Your task to perform on an android device: Show me popular games on the Play Store Image 0: 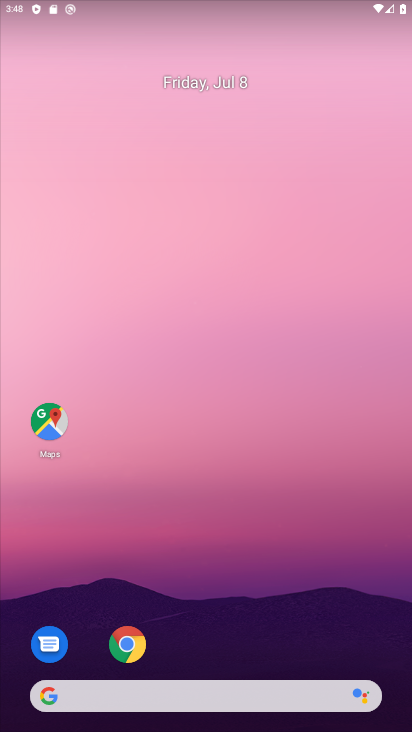
Step 0: drag from (378, 632) to (322, 61)
Your task to perform on an android device: Show me popular games on the Play Store Image 1: 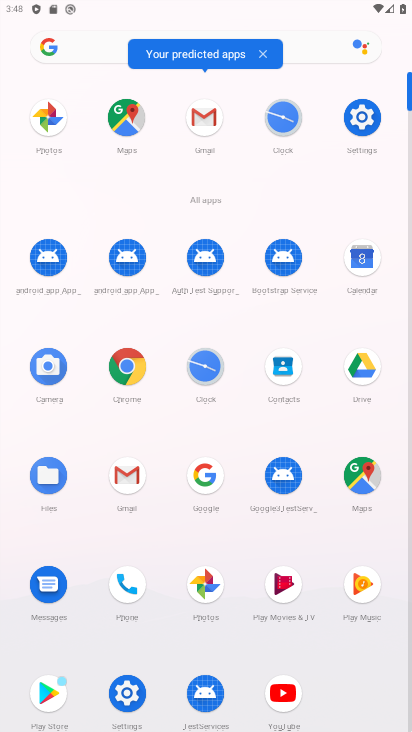
Step 1: click (47, 688)
Your task to perform on an android device: Show me popular games on the Play Store Image 2: 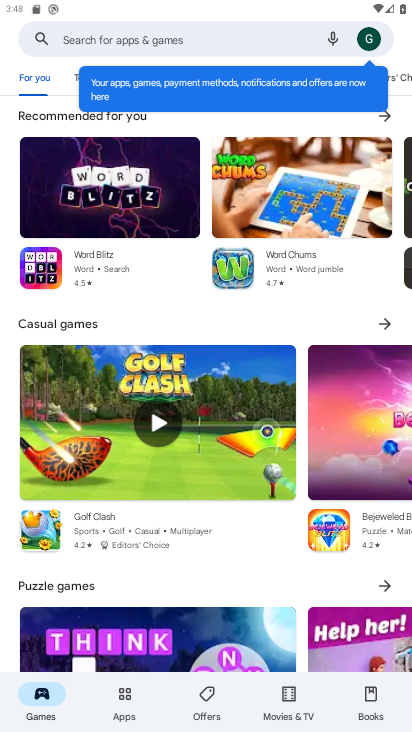
Step 2: drag from (257, 574) to (254, 257)
Your task to perform on an android device: Show me popular games on the Play Store Image 3: 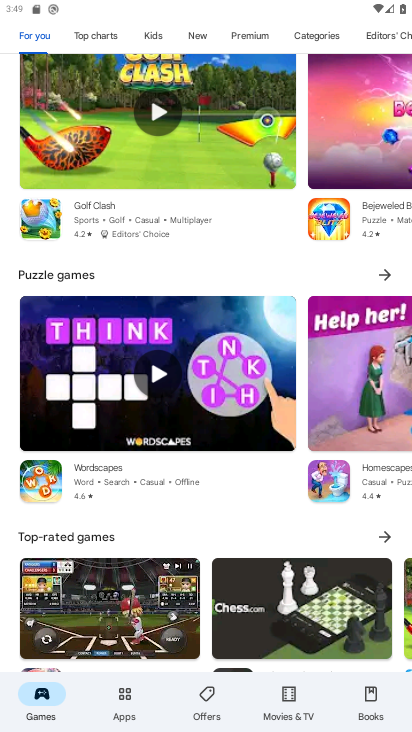
Step 3: drag from (267, 525) to (237, 126)
Your task to perform on an android device: Show me popular games on the Play Store Image 4: 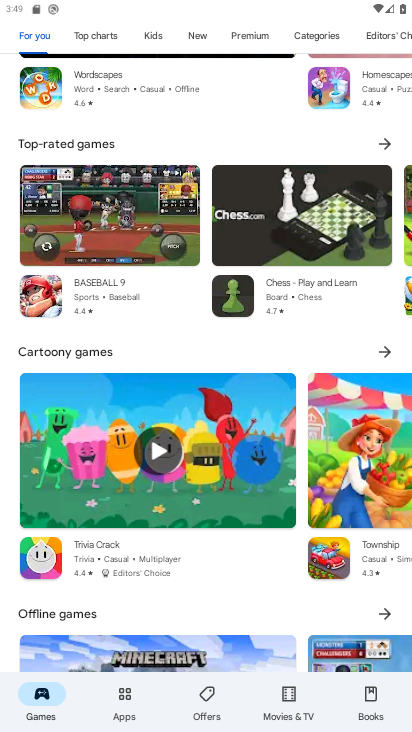
Step 4: drag from (298, 616) to (272, 133)
Your task to perform on an android device: Show me popular games on the Play Store Image 5: 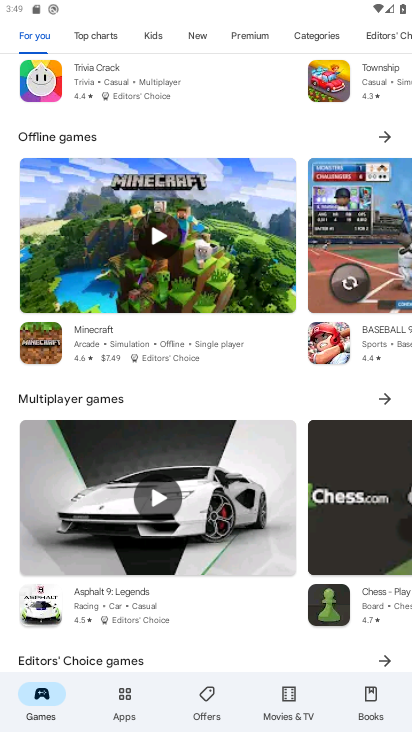
Step 5: drag from (292, 625) to (268, 85)
Your task to perform on an android device: Show me popular games on the Play Store Image 6: 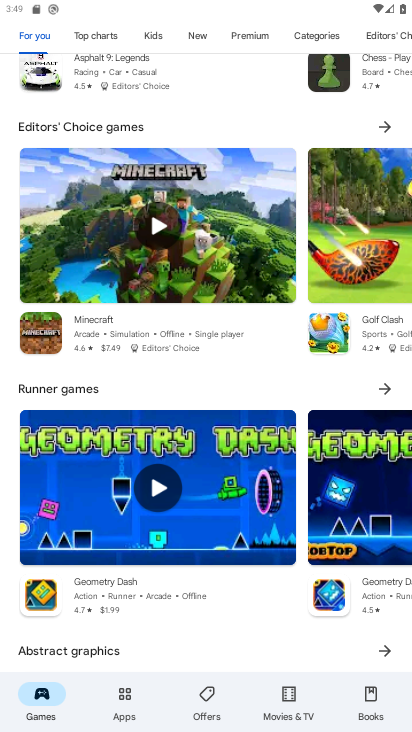
Step 6: drag from (296, 651) to (283, 163)
Your task to perform on an android device: Show me popular games on the Play Store Image 7: 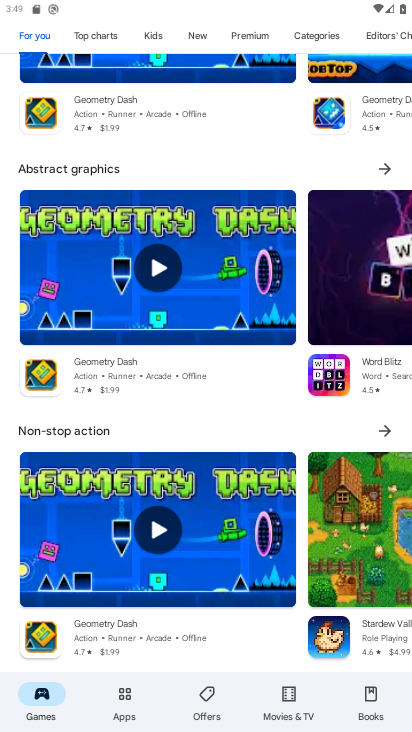
Step 7: drag from (300, 603) to (254, 92)
Your task to perform on an android device: Show me popular games on the Play Store Image 8: 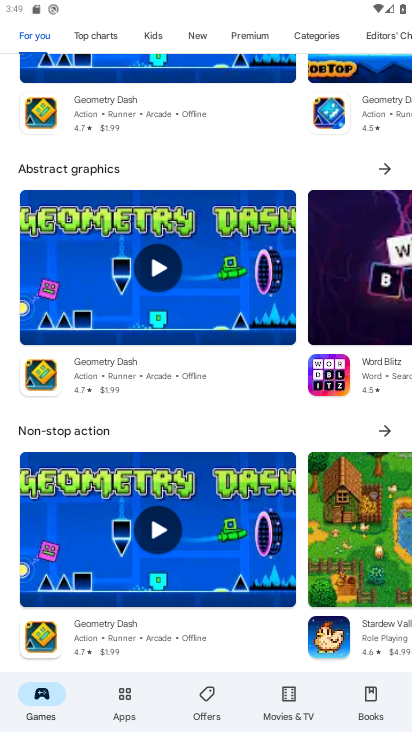
Step 8: drag from (300, 438) to (273, 27)
Your task to perform on an android device: Show me popular games on the Play Store Image 9: 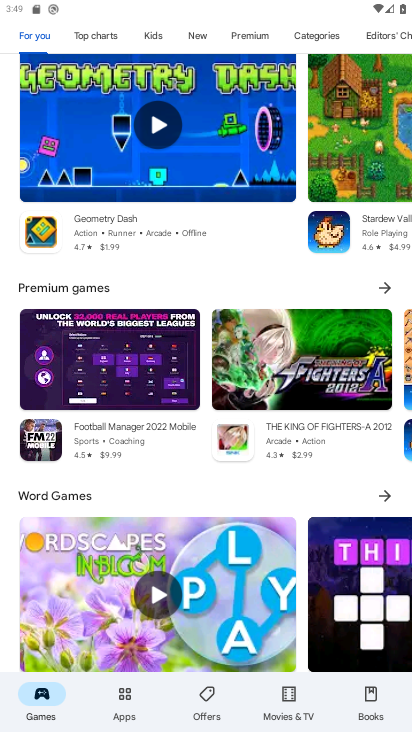
Step 9: click (306, 39)
Your task to perform on an android device: Show me popular games on the Play Store Image 10: 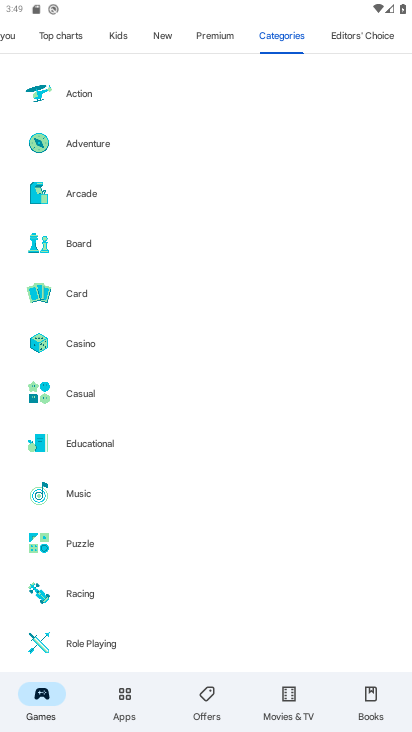
Step 10: drag from (174, 228) to (173, 515)
Your task to perform on an android device: Show me popular games on the Play Store Image 11: 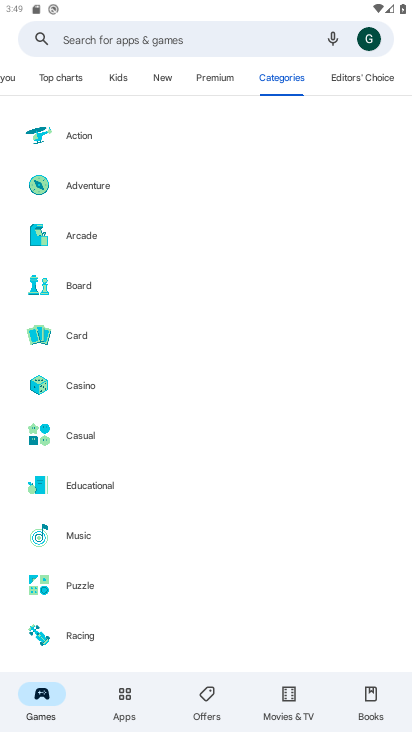
Step 11: click (120, 36)
Your task to perform on an android device: Show me popular games on the Play Store Image 12: 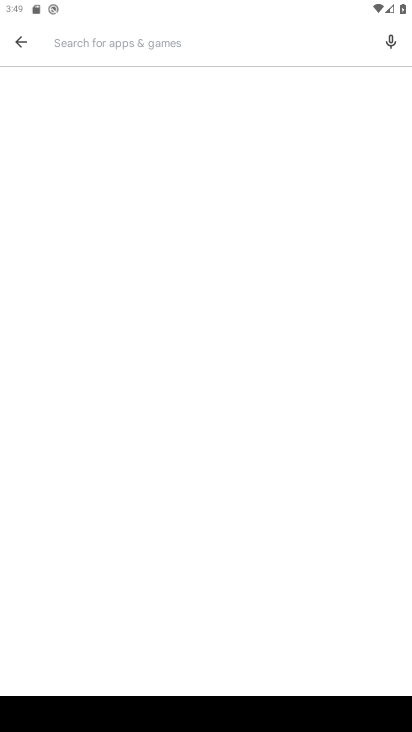
Step 12: type "popular games"
Your task to perform on an android device: Show me popular games on the Play Store Image 13: 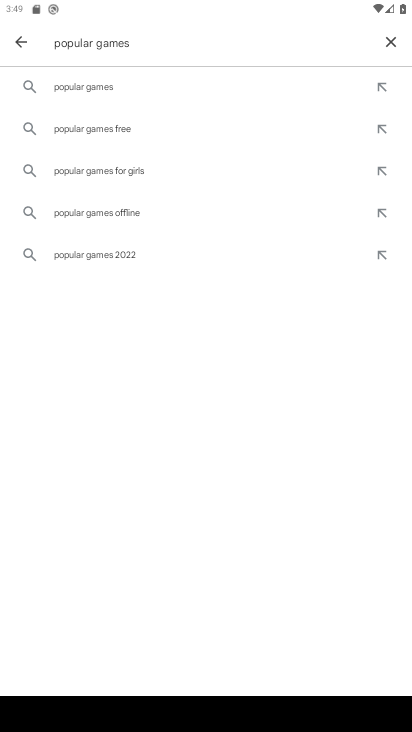
Step 13: click (70, 75)
Your task to perform on an android device: Show me popular games on the Play Store Image 14: 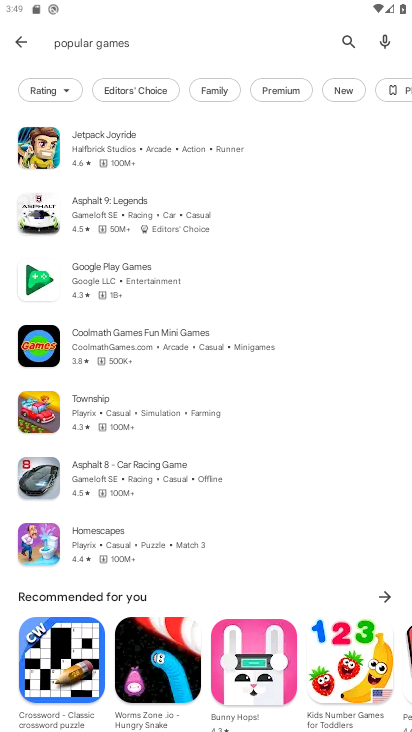
Step 14: task complete